Your task to perform on an android device: turn off sleep mode Image 0: 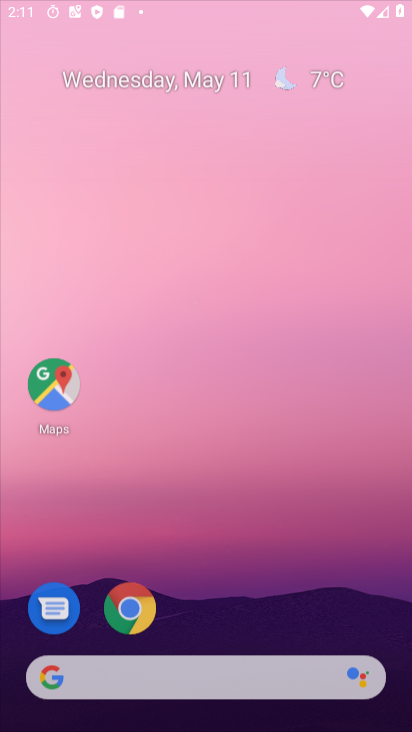
Step 0: click (205, 123)
Your task to perform on an android device: turn off sleep mode Image 1: 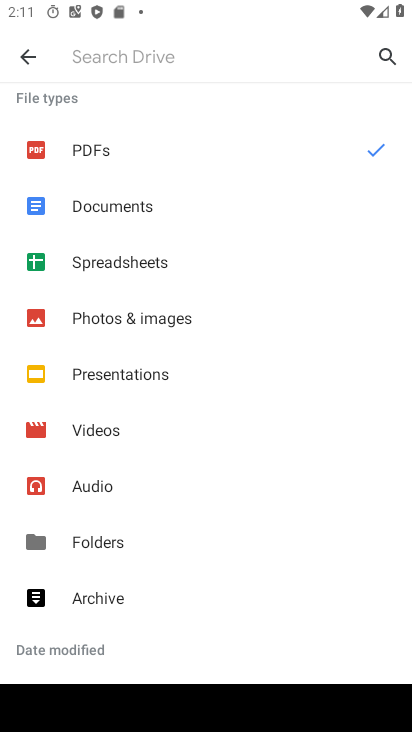
Step 1: press home button
Your task to perform on an android device: turn off sleep mode Image 2: 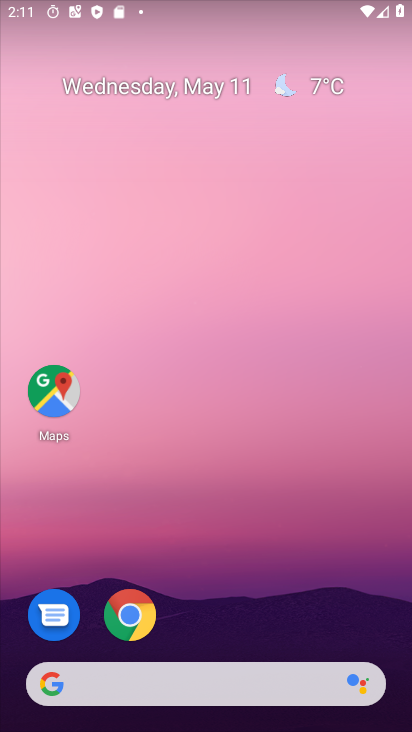
Step 2: drag from (230, 679) to (255, 28)
Your task to perform on an android device: turn off sleep mode Image 3: 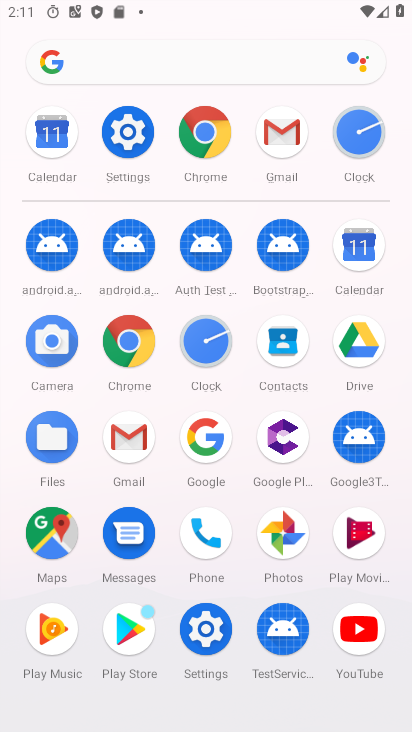
Step 3: click (118, 129)
Your task to perform on an android device: turn off sleep mode Image 4: 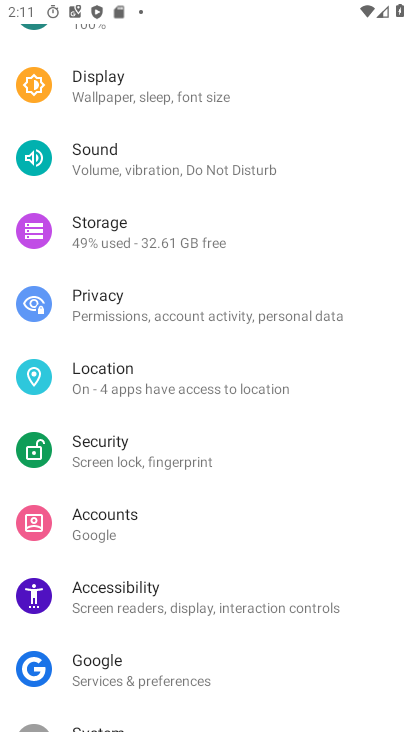
Step 4: click (124, 91)
Your task to perform on an android device: turn off sleep mode Image 5: 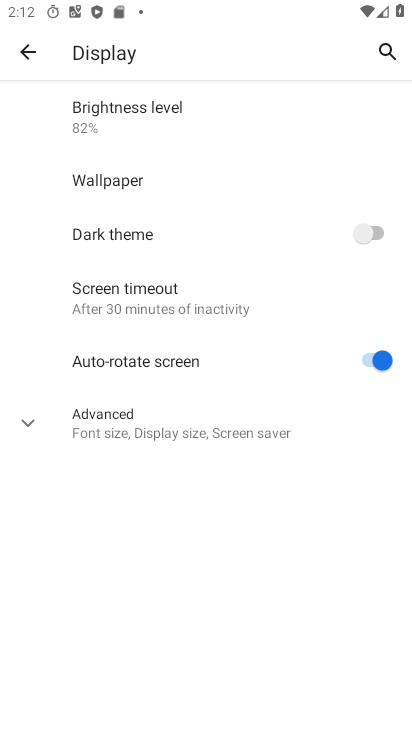
Step 5: click (198, 431)
Your task to perform on an android device: turn off sleep mode Image 6: 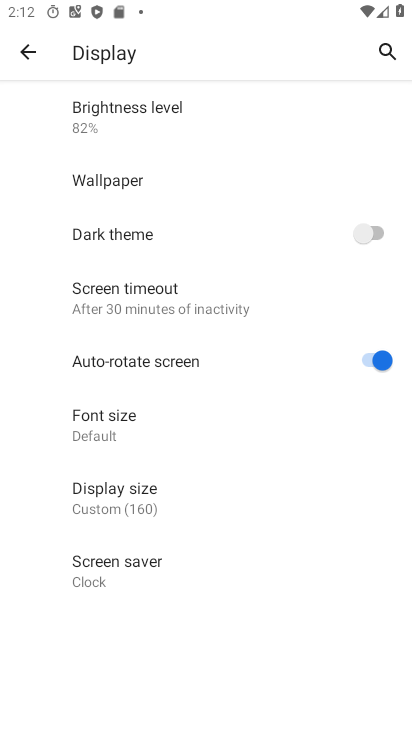
Step 6: task complete